Your task to perform on an android device: When is my next appointment? Image 0: 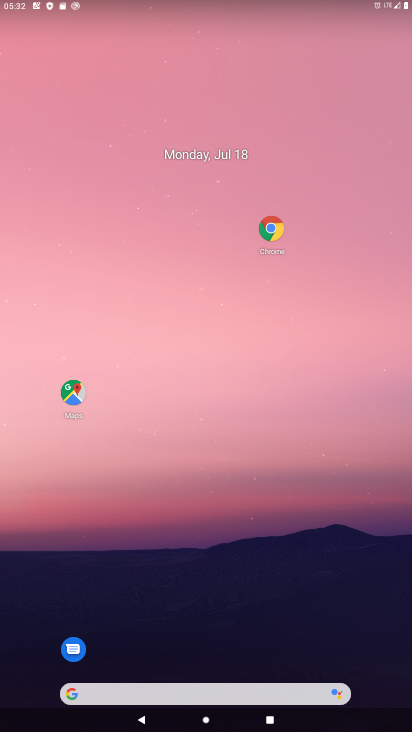
Step 0: click (200, 153)
Your task to perform on an android device: When is my next appointment? Image 1: 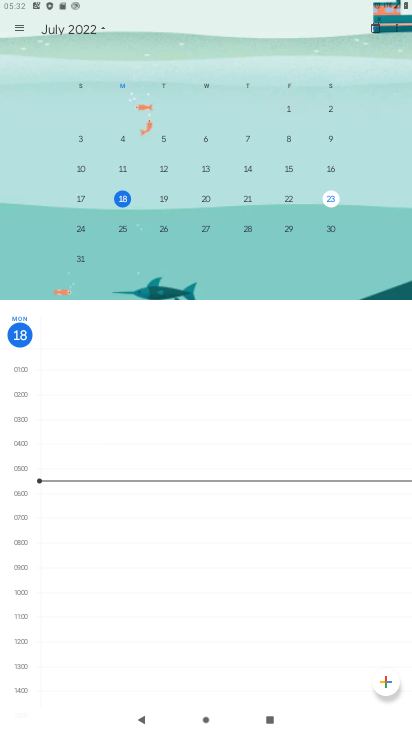
Step 1: task complete